Your task to perform on an android device: Search for asus rog on amazon, select the first entry, and add it to the cart. Image 0: 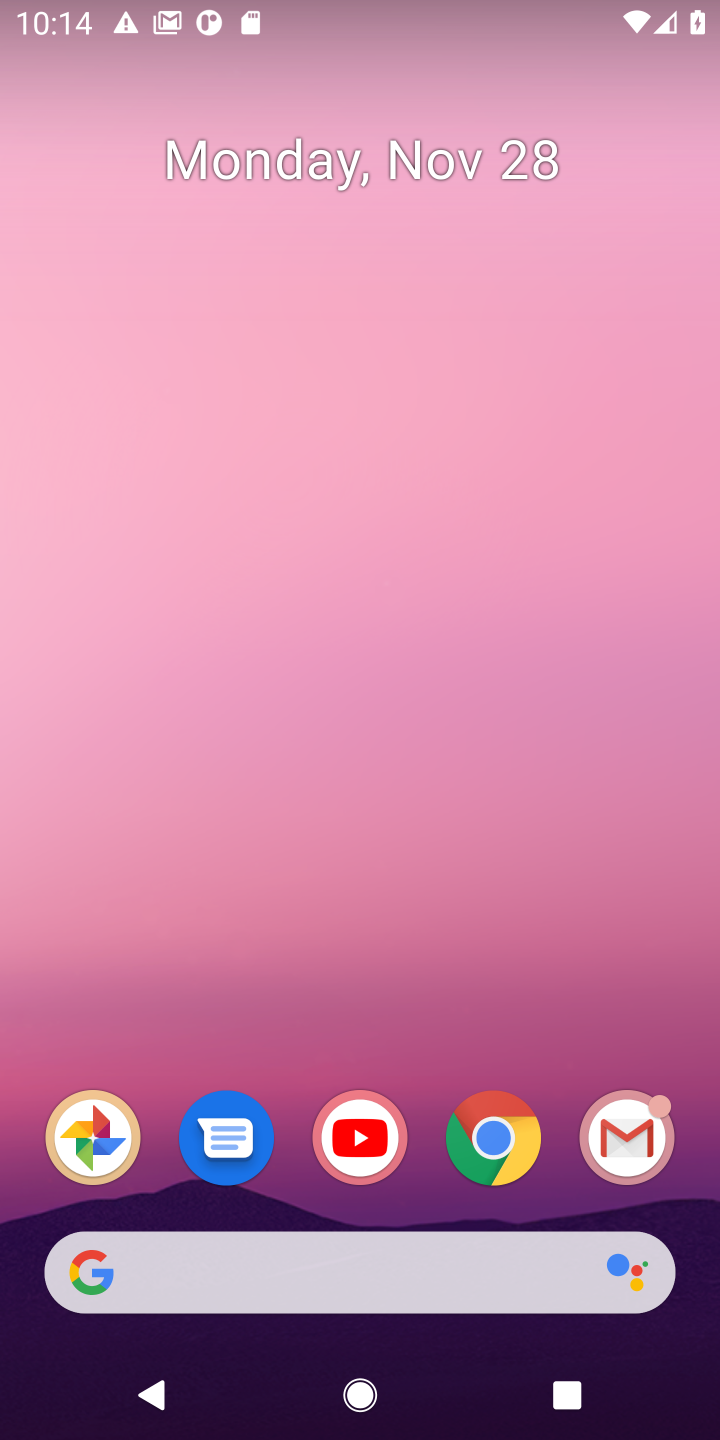
Step 0: click (489, 1146)
Your task to perform on an android device: Search for asus rog on amazon, select the first entry, and add it to the cart. Image 1: 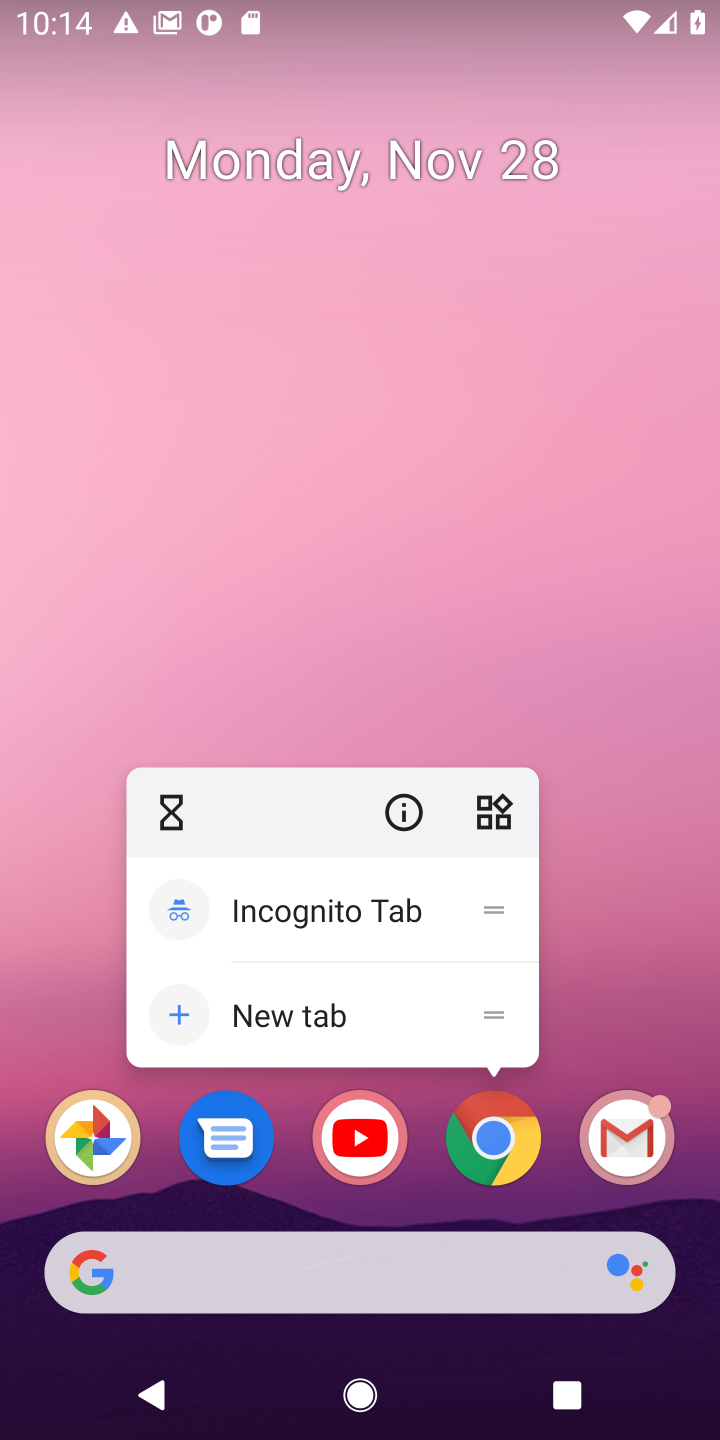
Step 1: click (489, 1145)
Your task to perform on an android device: Search for asus rog on amazon, select the first entry, and add it to the cart. Image 2: 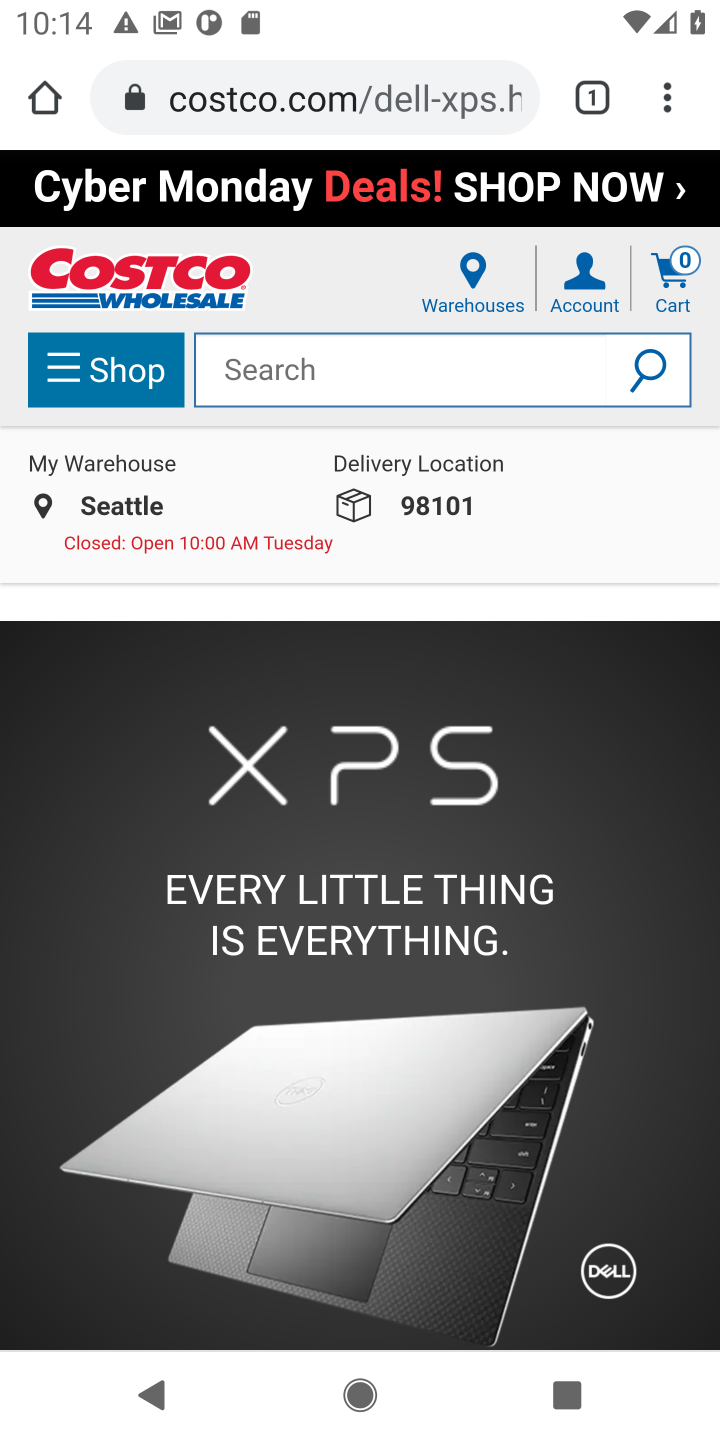
Step 2: click (257, 100)
Your task to perform on an android device: Search for asus rog on amazon, select the first entry, and add it to the cart. Image 3: 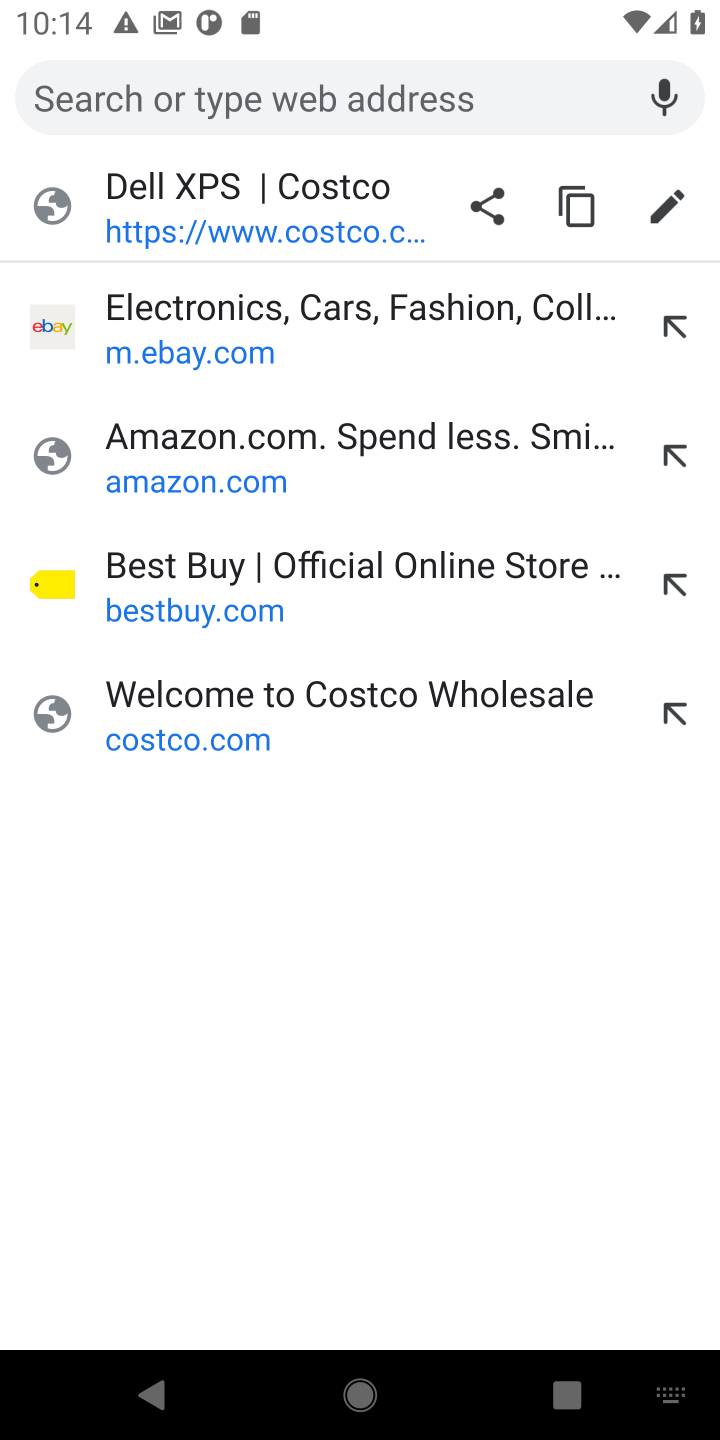
Step 3: click (136, 435)
Your task to perform on an android device: Search for asus rog on amazon, select the first entry, and add it to the cart. Image 4: 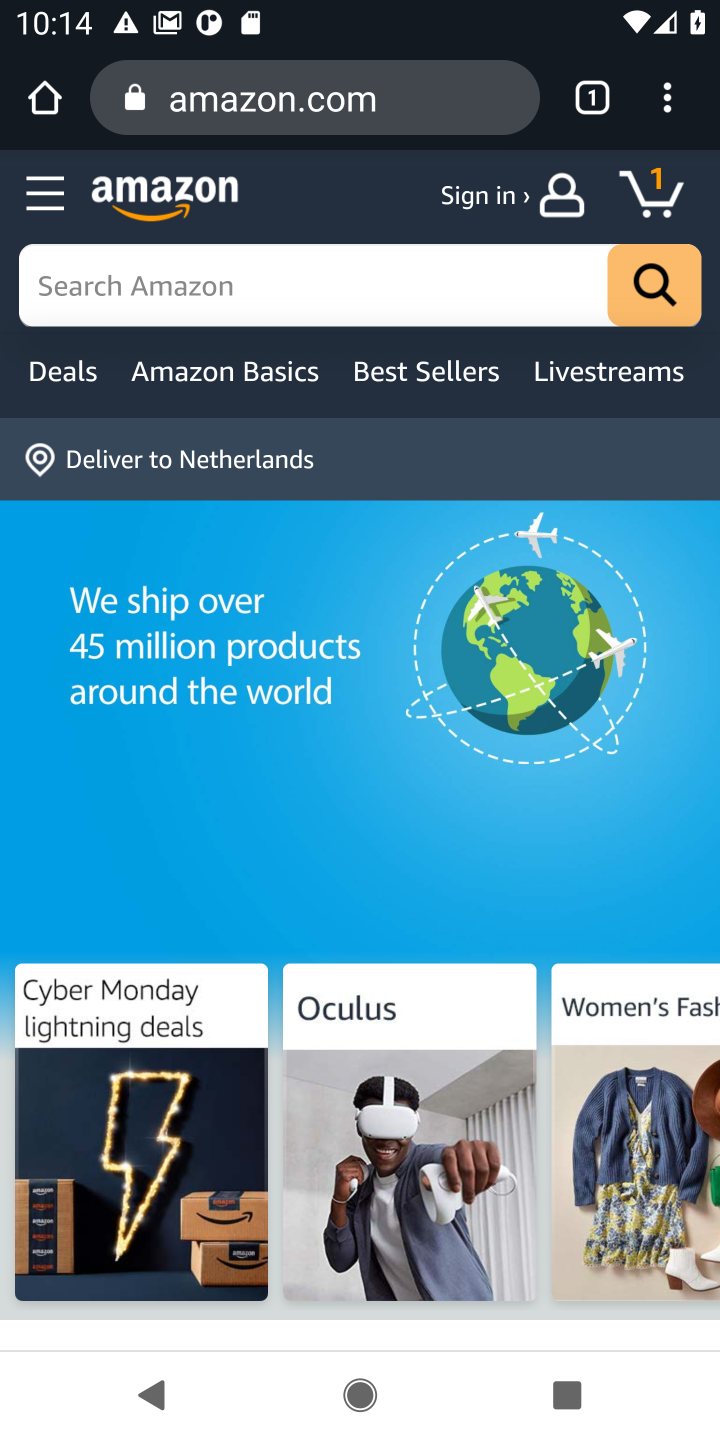
Step 4: click (205, 297)
Your task to perform on an android device: Search for asus rog on amazon, select the first entry, and add it to the cart. Image 5: 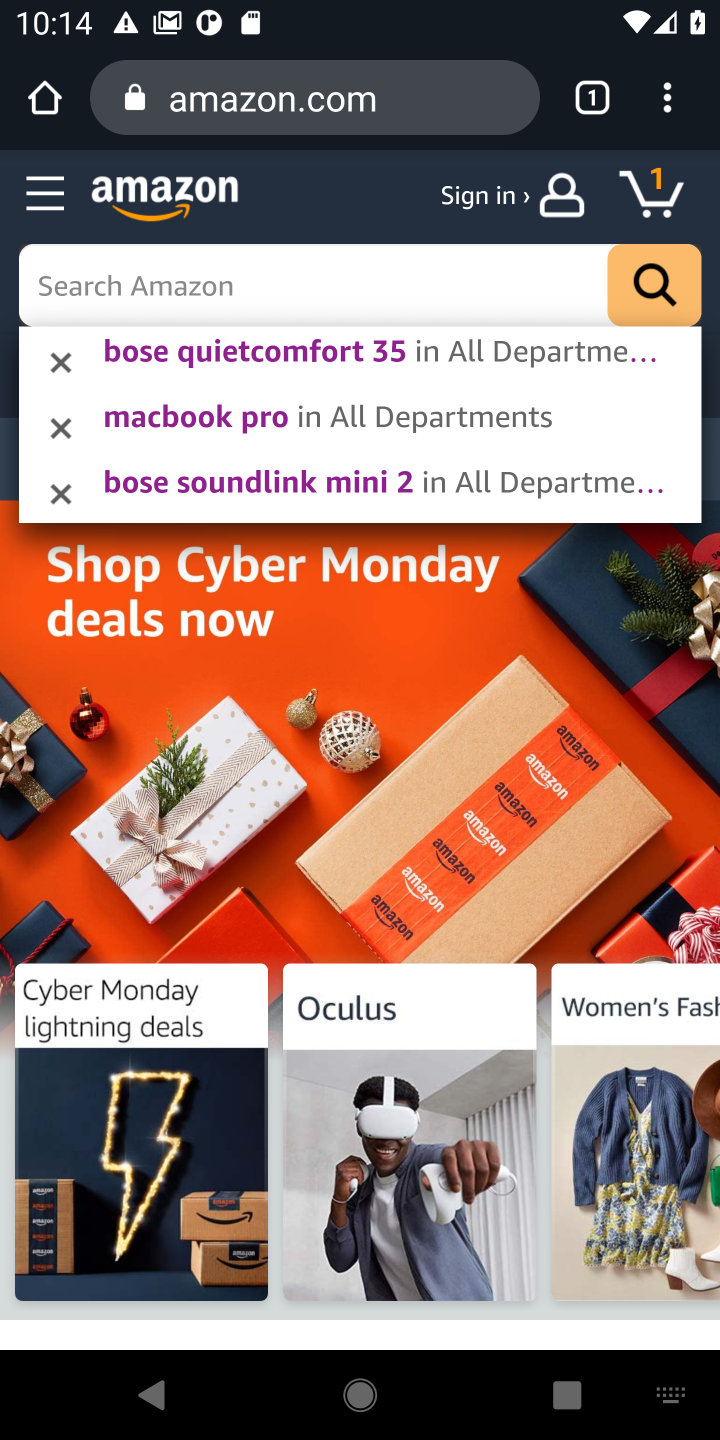
Step 5: type "asus rog"
Your task to perform on an android device: Search for asus rog on amazon, select the first entry, and add it to the cart. Image 6: 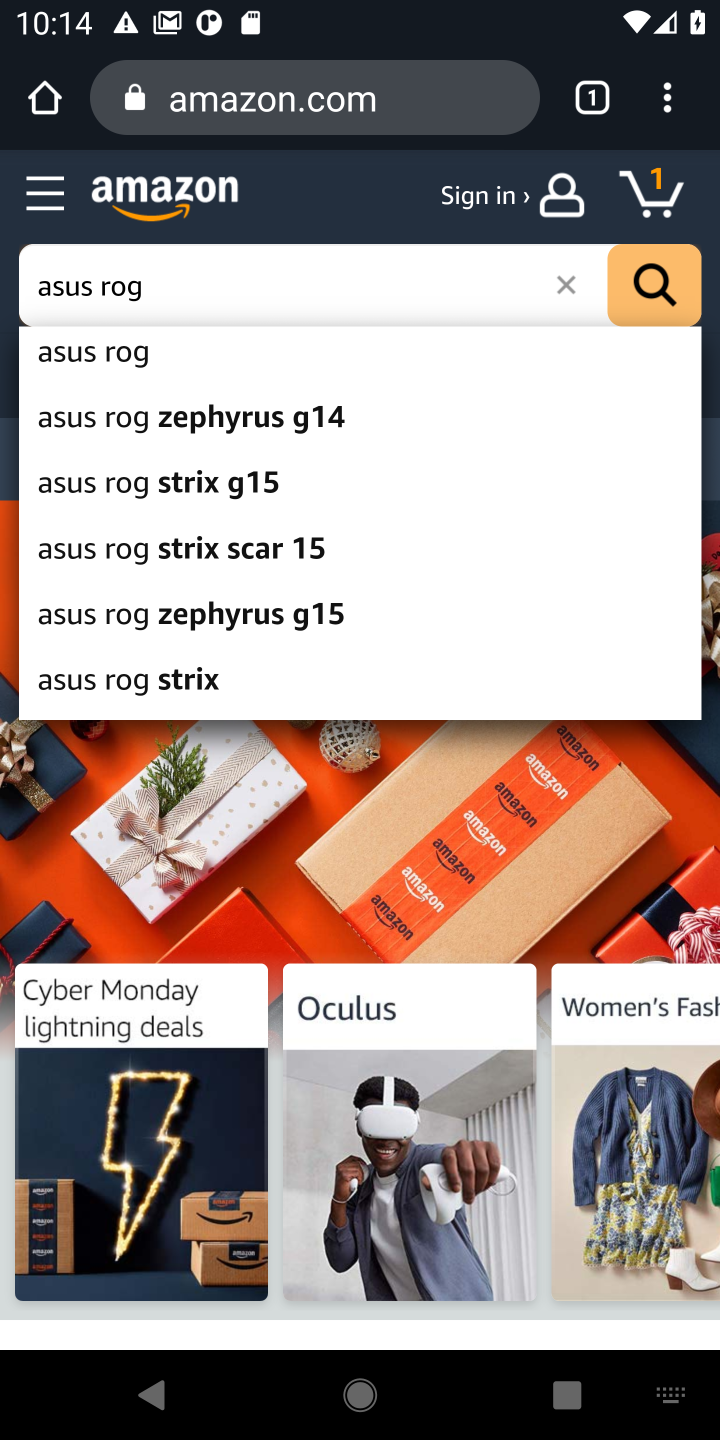
Step 6: click (99, 359)
Your task to perform on an android device: Search for asus rog on amazon, select the first entry, and add it to the cart. Image 7: 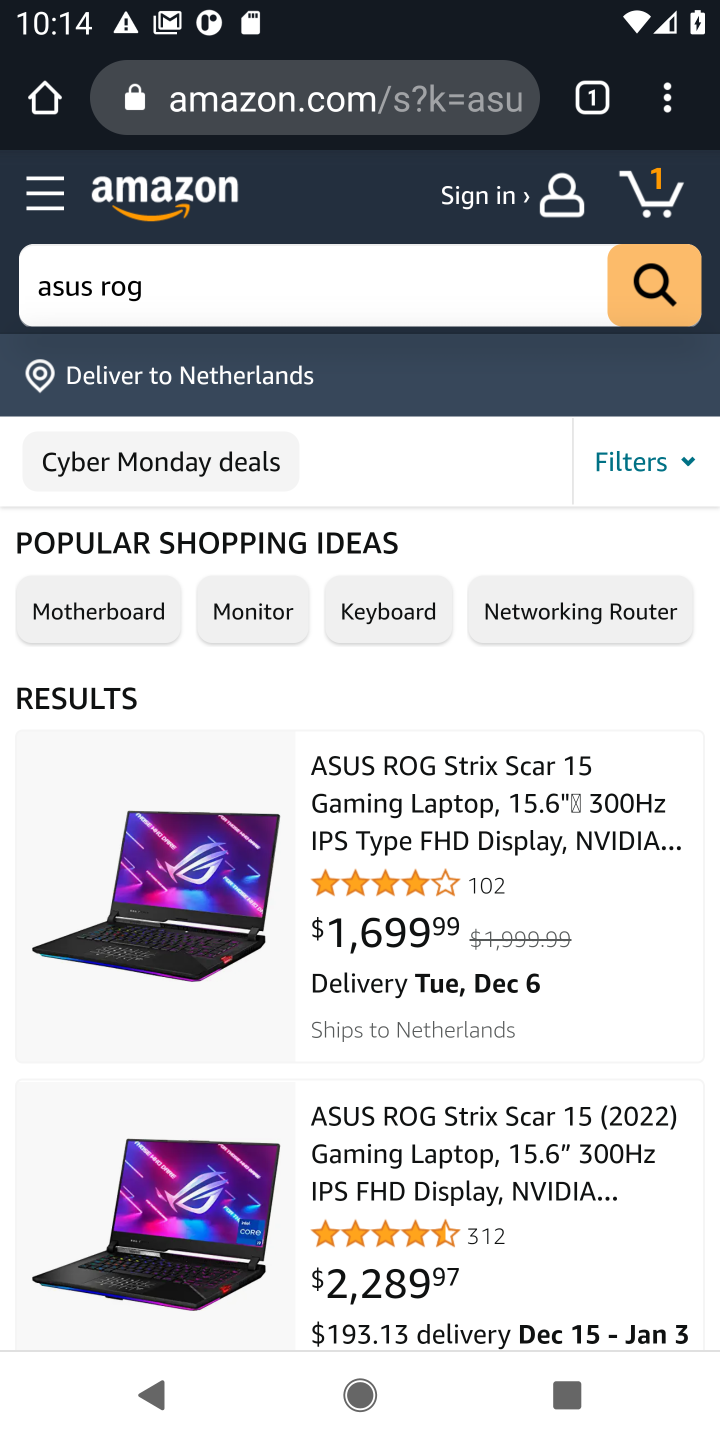
Step 7: click (351, 785)
Your task to perform on an android device: Search for asus rog on amazon, select the first entry, and add it to the cart. Image 8: 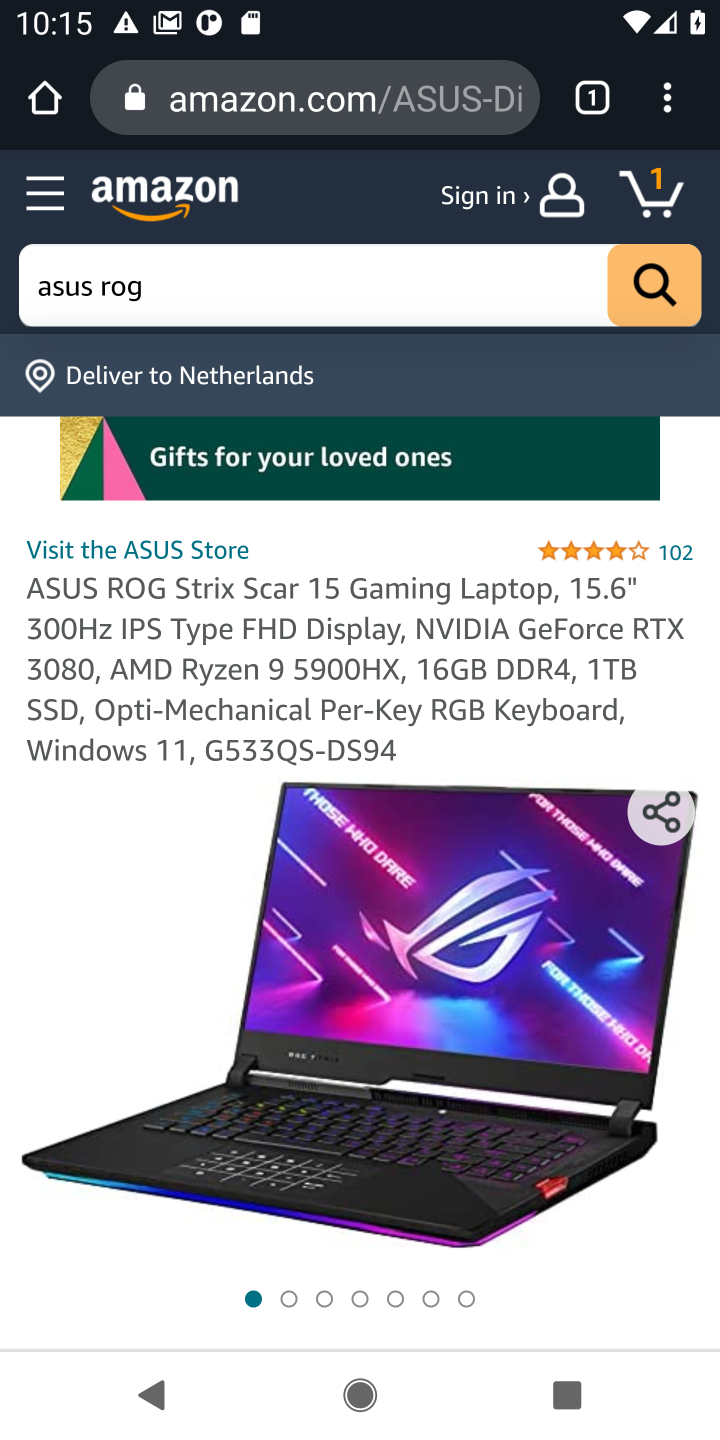
Step 8: drag from (684, 1005) to (647, 671)
Your task to perform on an android device: Search for asus rog on amazon, select the first entry, and add it to the cart. Image 9: 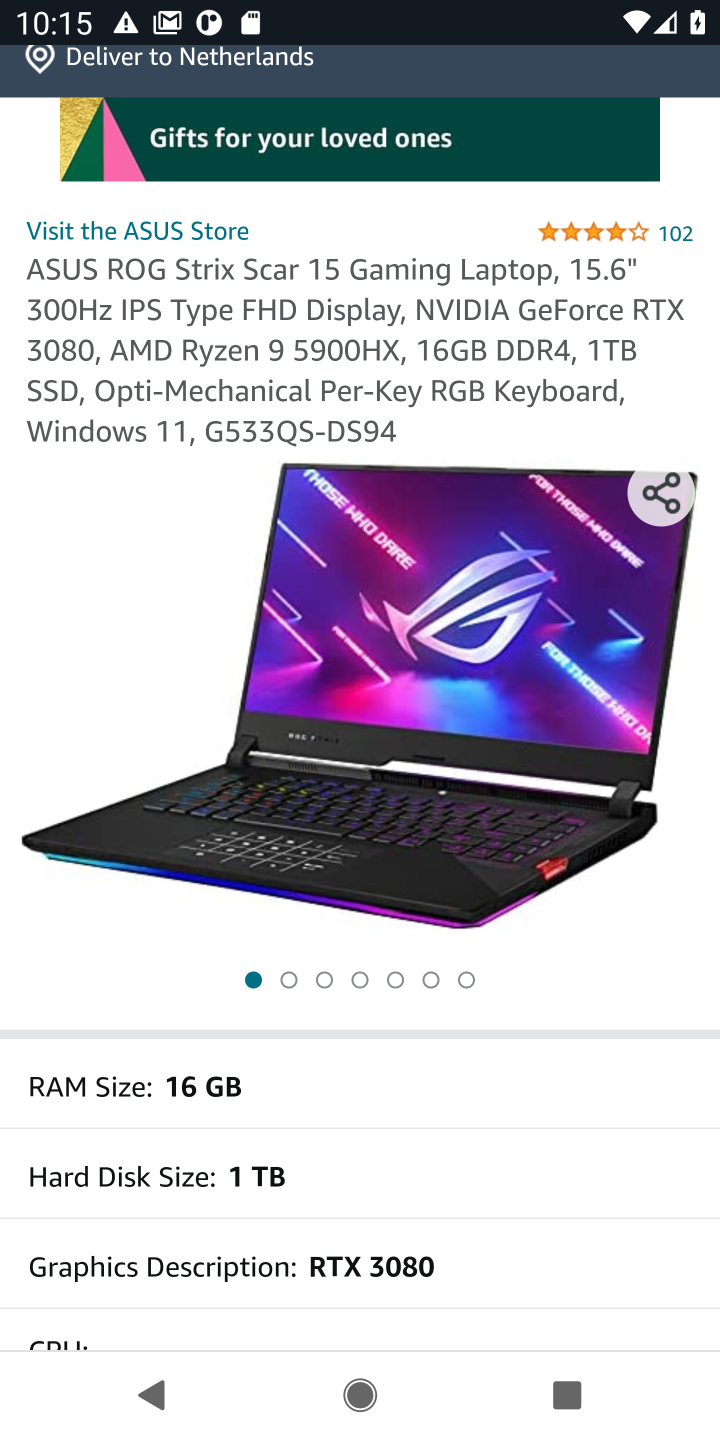
Step 9: drag from (644, 1084) to (612, 646)
Your task to perform on an android device: Search for asus rog on amazon, select the first entry, and add it to the cart. Image 10: 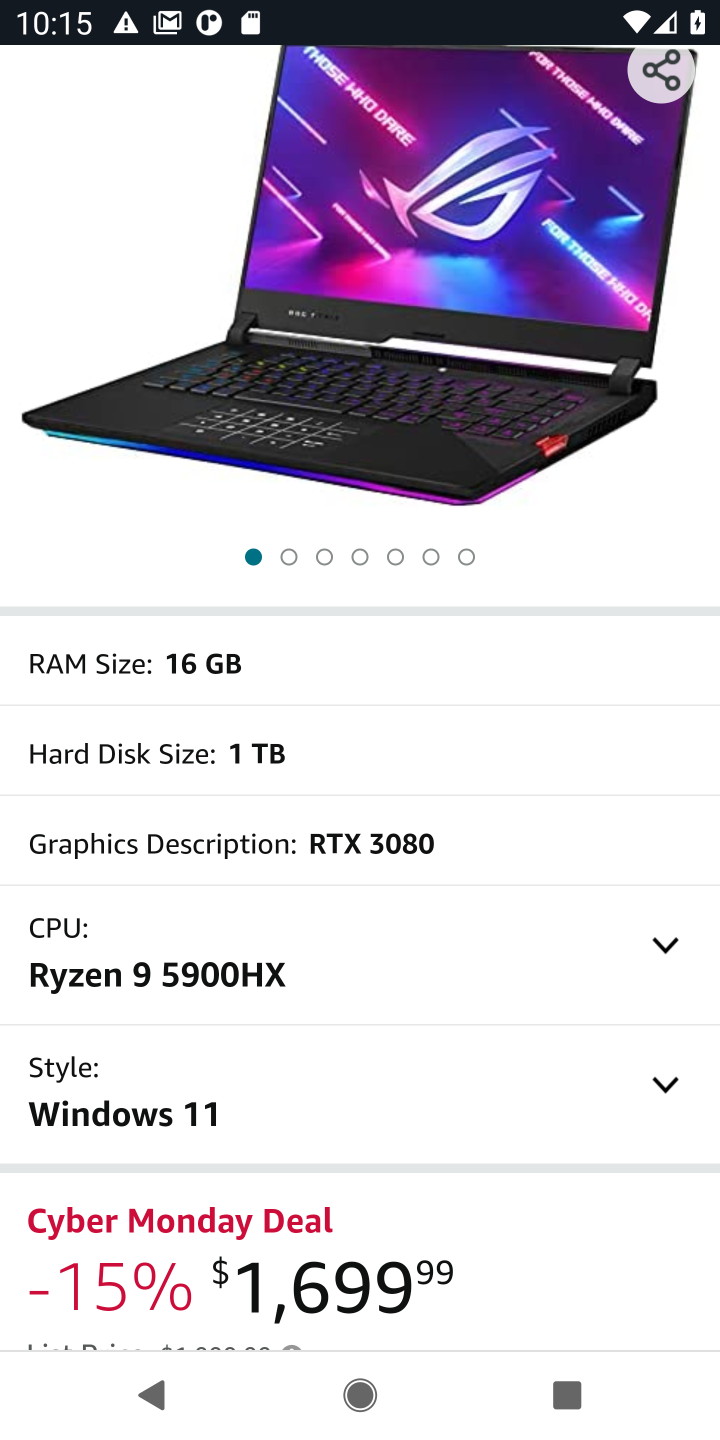
Step 10: drag from (575, 949) to (543, 585)
Your task to perform on an android device: Search for asus rog on amazon, select the first entry, and add it to the cart. Image 11: 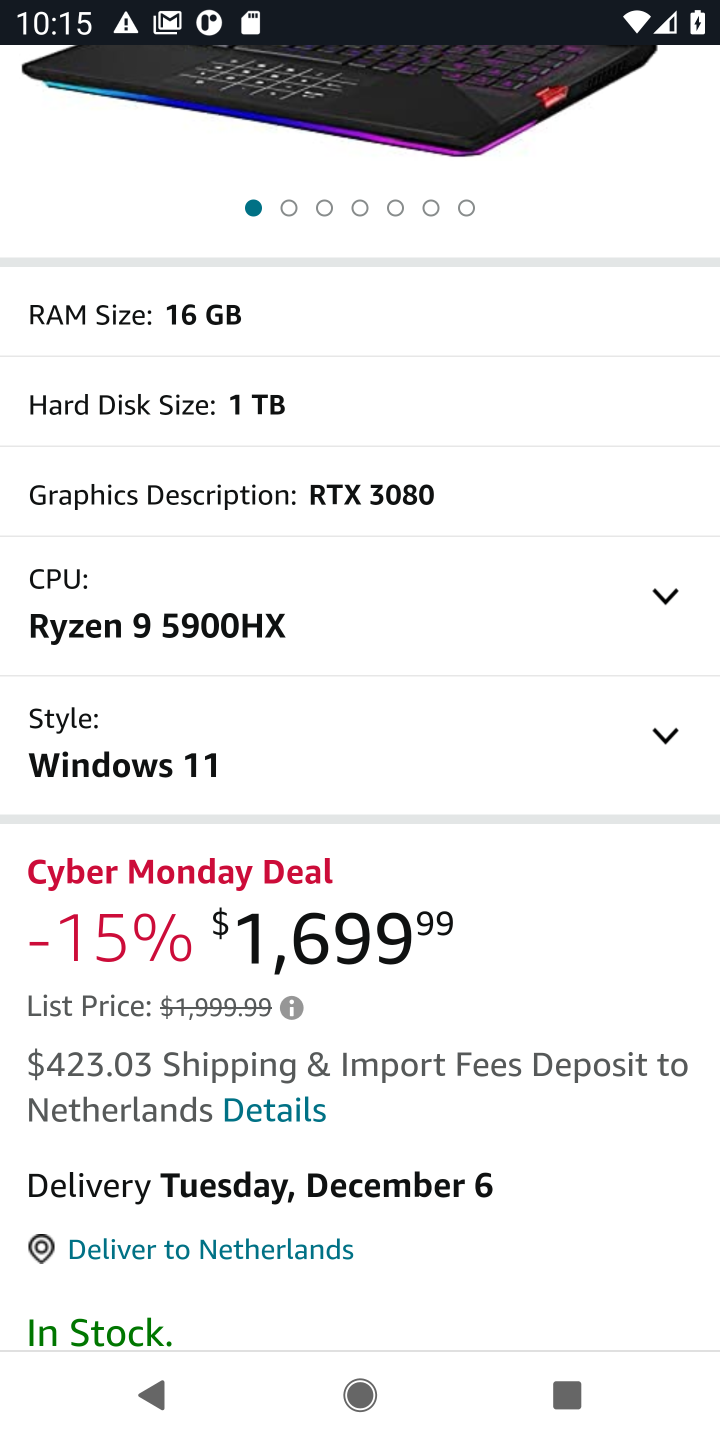
Step 11: drag from (603, 841) to (570, 374)
Your task to perform on an android device: Search for asus rog on amazon, select the first entry, and add it to the cart. Image 12: 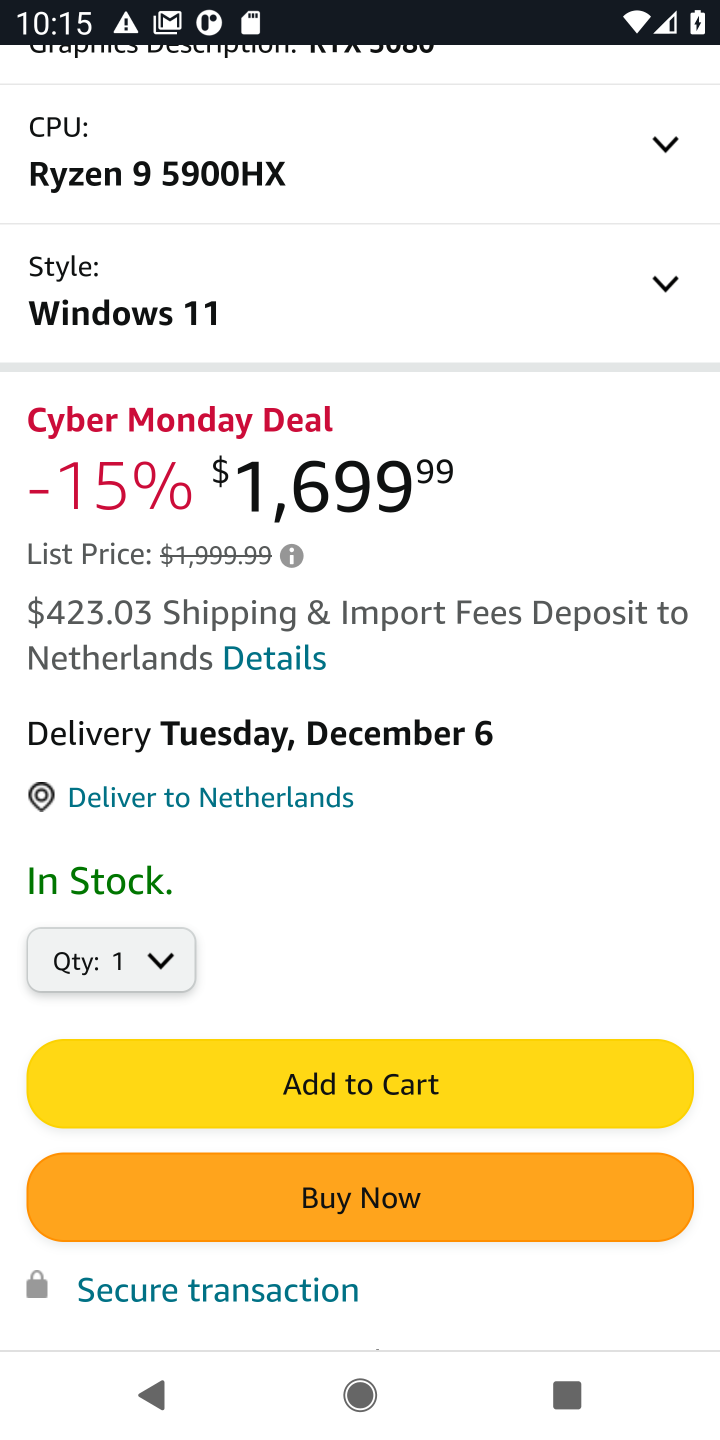
Step 12: click (394, 1081)
Your task to perform on an android device: Search for asus rog on amazon, select the first entry, and add it to the cart. Image 13: 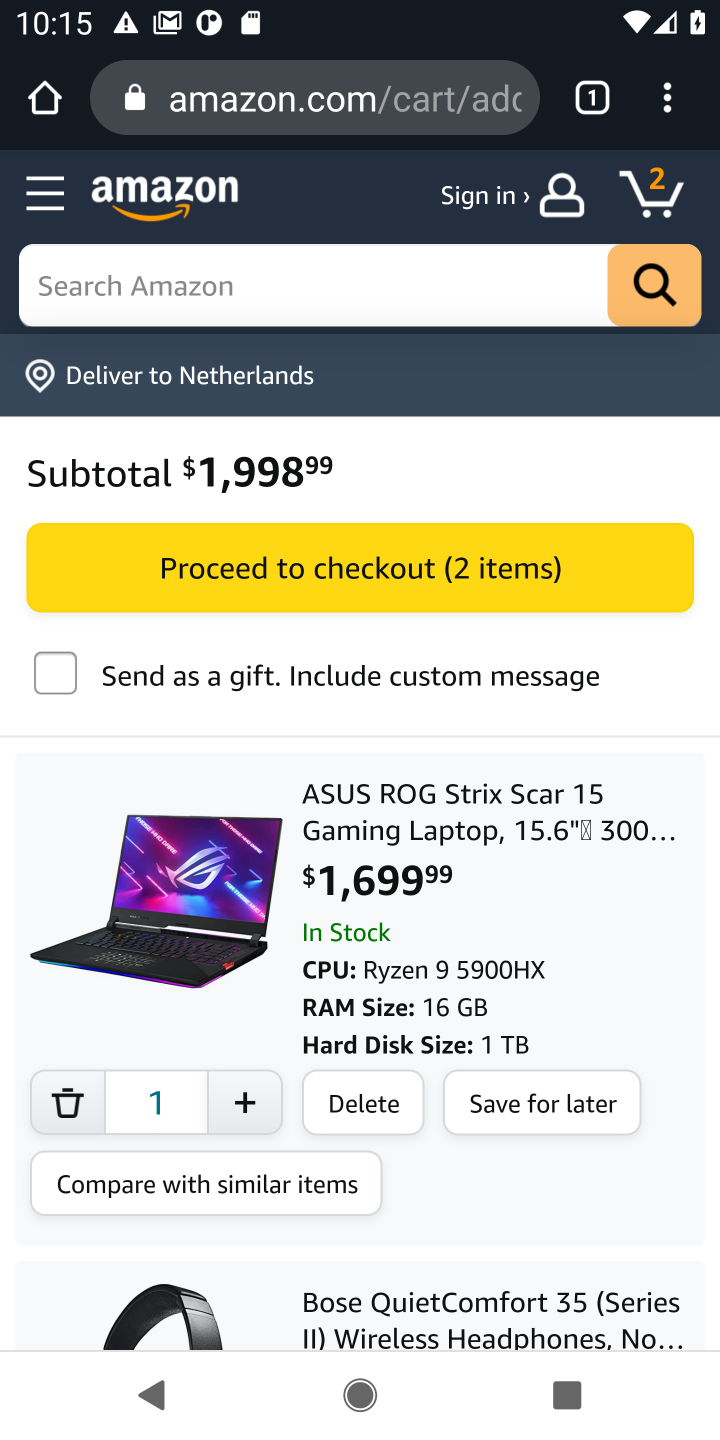
Step 13: task complete